Your task to perform on an android device: Go to Google maps Image 0: 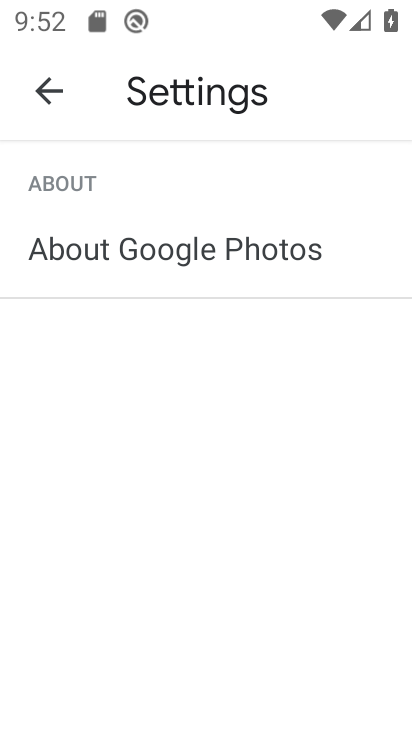
Step 0: press home button
Your task to perform on an android device: Go to Google maps Image 1: 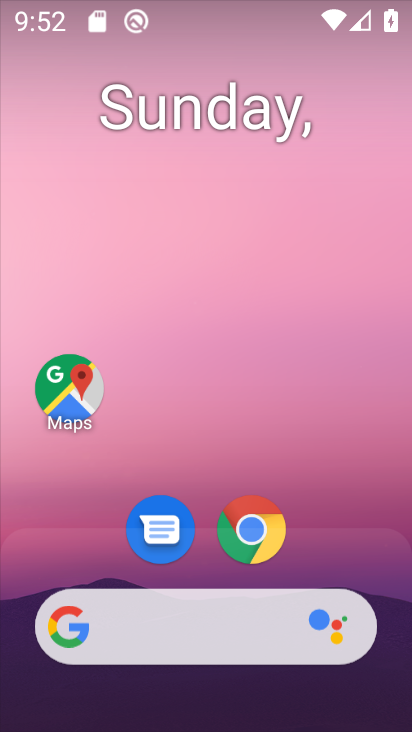
Step 1: click (80, 394)
Your task to perform on an android device: Go to Google maps Image 2: 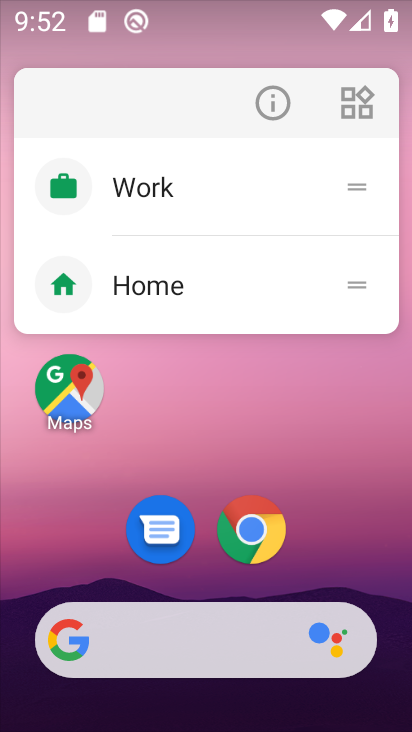
Step 2: click (72, 403)
Your task to perform on an android device: Go to Google maps Image 3: 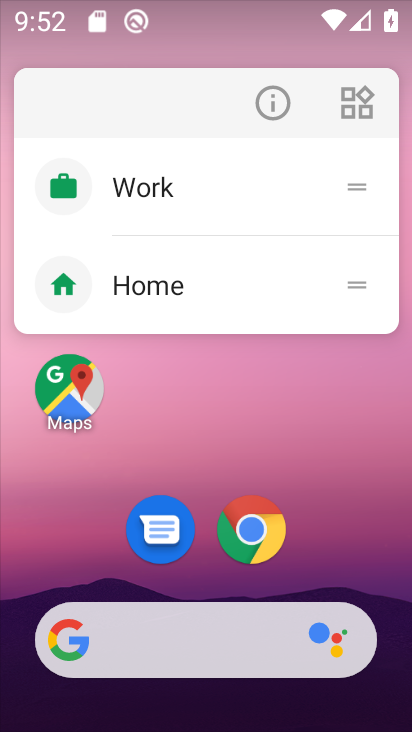
Step 3: click (89, 389)
Your task to perform on an android device: Go to Google maps Image 4: 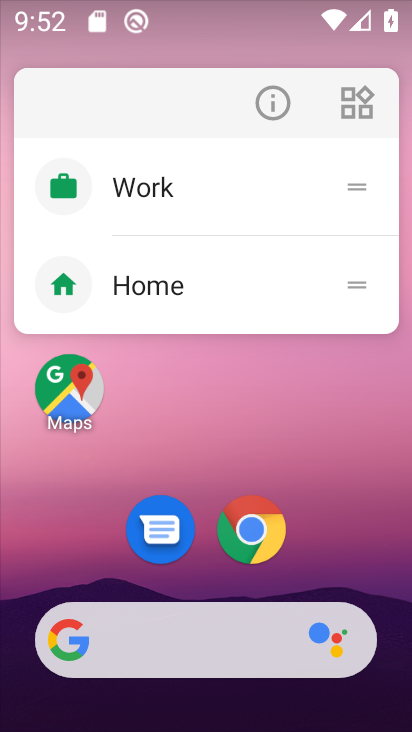
Step 4: click (77, 383)
Your task to perform on an android device: Go to Google maps Image 5: 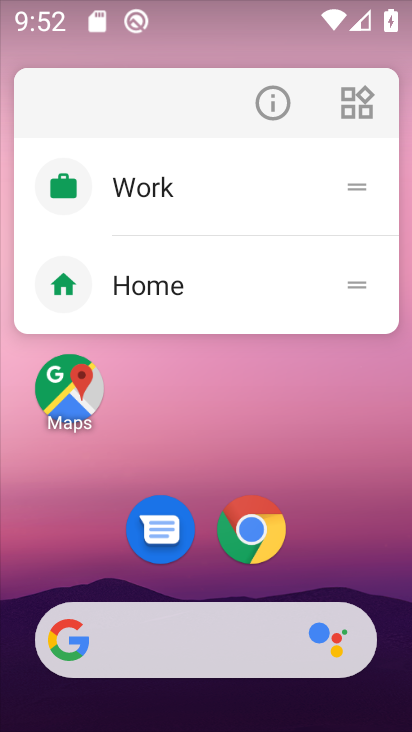
Step 5: click (77, 380)
Your task to perform on an android device: Go to Google maps Image 6: 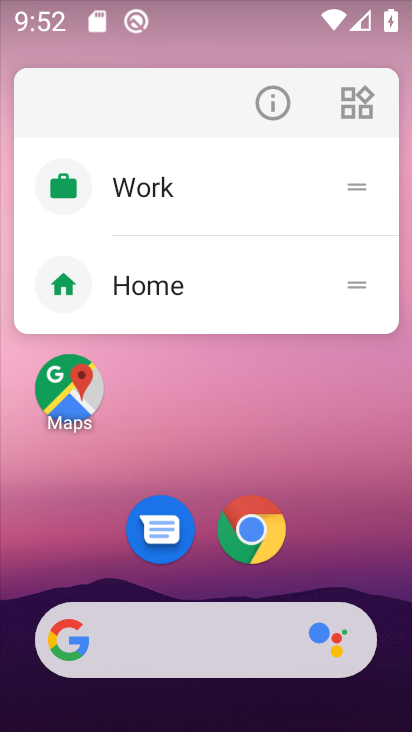
Step 6: click (53, 386)
Your task to perform on an android device: Go to Google maps Image 7: 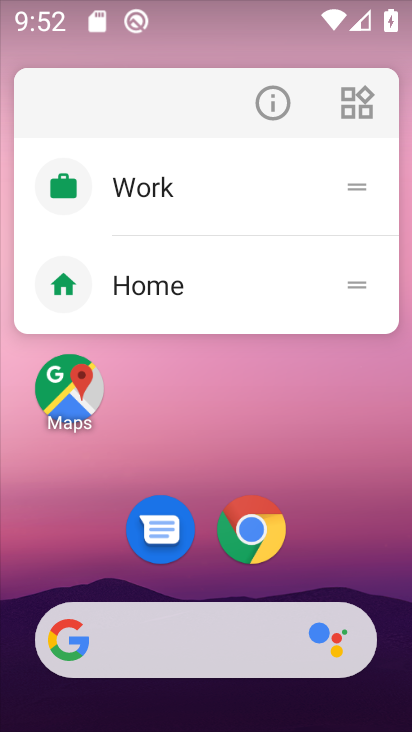
Step 7: click (72, 402)
Your task to perform on an android device: Go to Google maps Image 8: 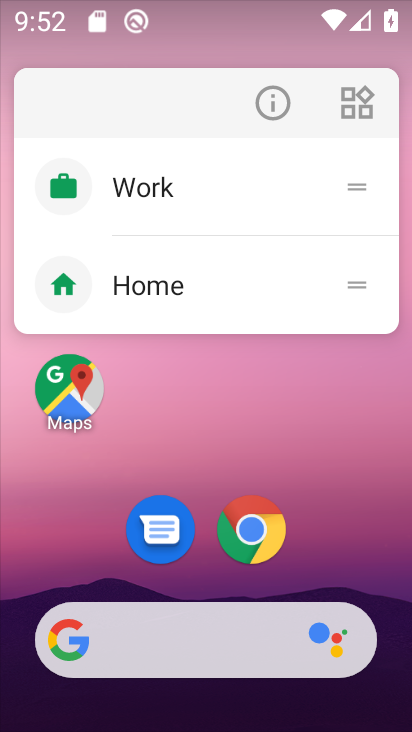
Step 8: click (60, 410)
Your task to perform on an android device: Go to Google maps Image 9: 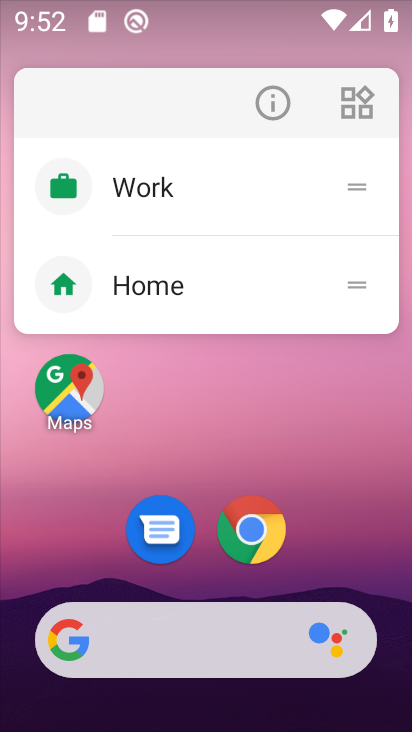
Step 9: click (90, 395)
Your task to perform on an android device: Go to Google maps Image 10: 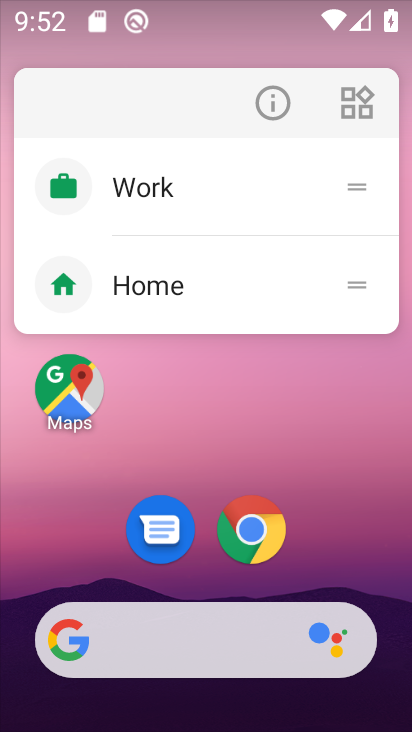
Step 10: click (80, 370)
Your task to perform on an android device: Go to Google maps Image 11: 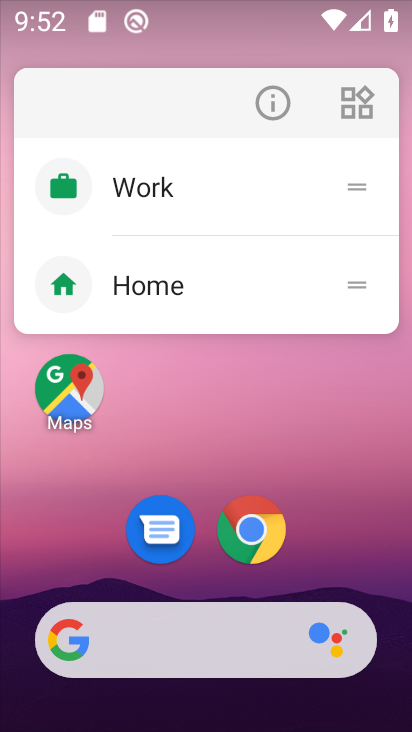
Step 11: click (64, 384)
Your task to perform on an android device: Go to Google maps Image 12: 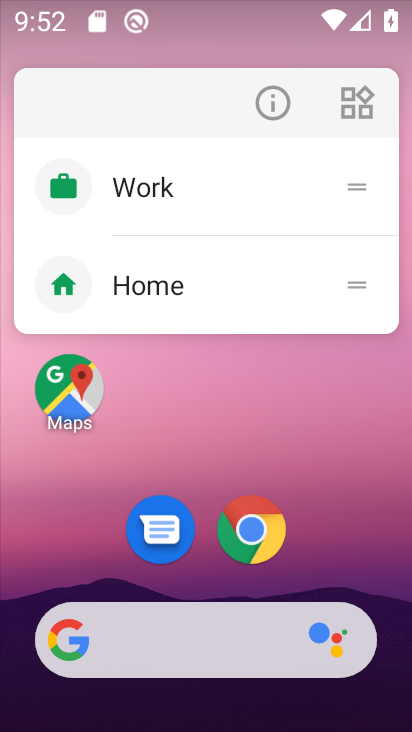
Step 12: click (48, 375)
Your task to perform on an android device: Go to Google maps Image 13: 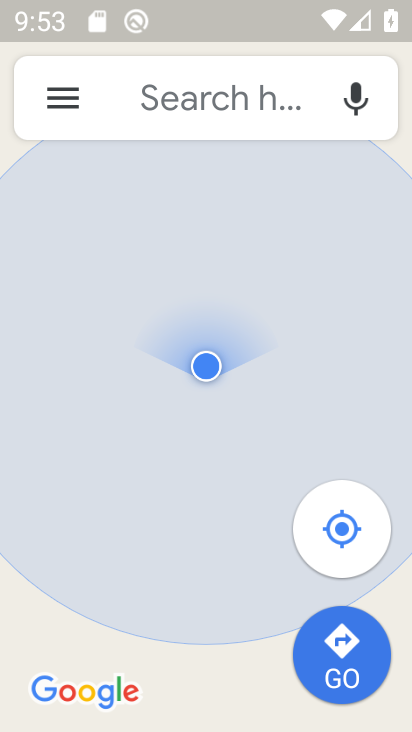
Step 13: task complete